Your task to perform on an android device: turn on data saver in the chrome app Image 0: 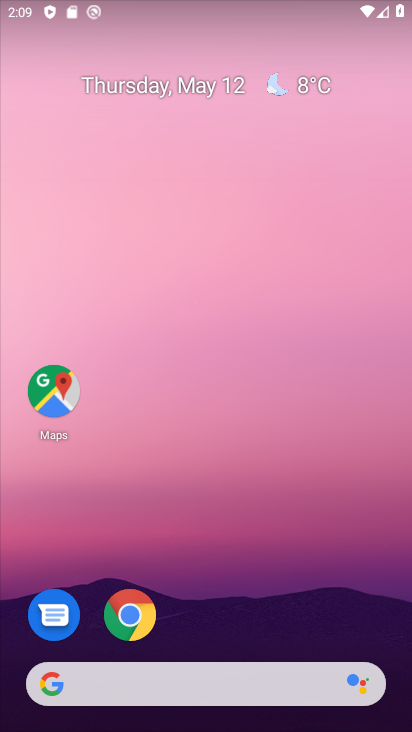
Step 0: click (145, 614)
Your task to perform on an android device: turn on data saver in the chrome app Image 1: 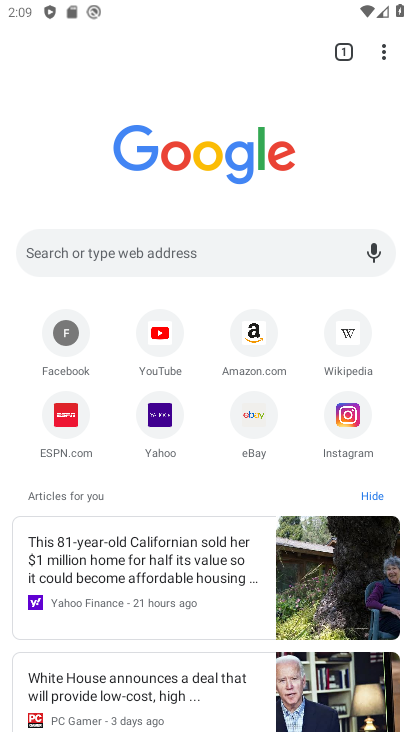
Step 1: drag from (403, 54) to (268, 490)
Your task to perform on an android device: turn on data saver in the chrome app Image 2: 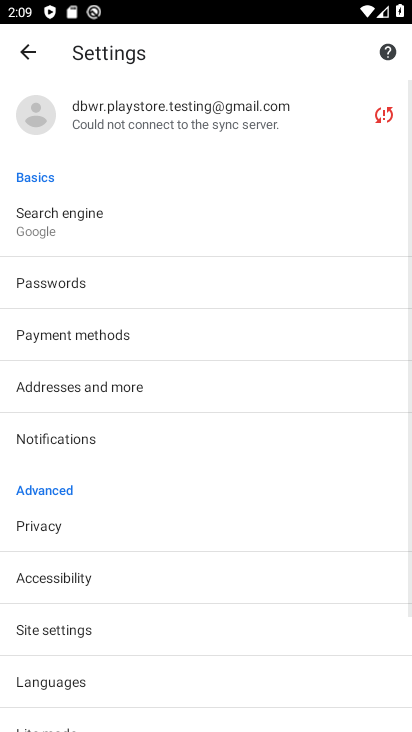
Step 2: drag from (94, 633) to (157, 420)
Your task to perform on an android device: turn on data saver in the chrome app Image 3: 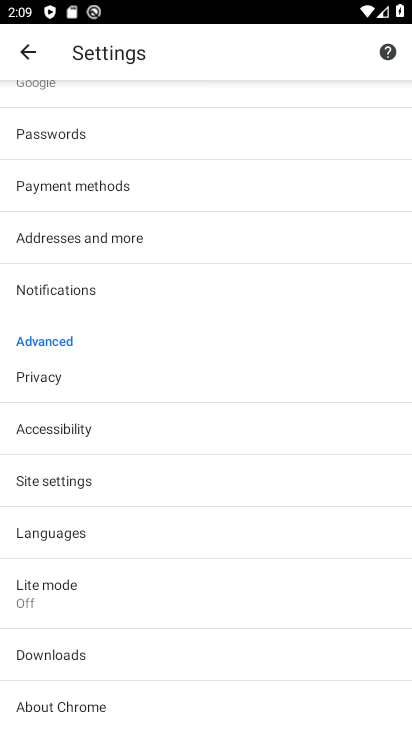
Step 3: click (129, 600)
Your task to perform on an android device: turn on data saver in the chrome app Image 4: 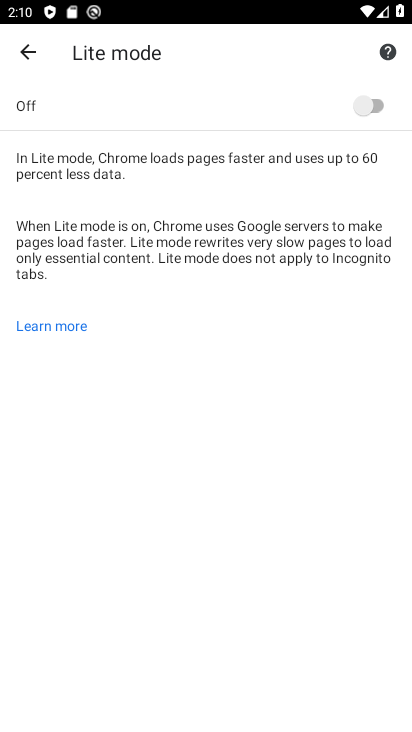
Step 4: click (382, 107)
Your task to perform on an android device: turn on data saver in the chrome app Image 5: 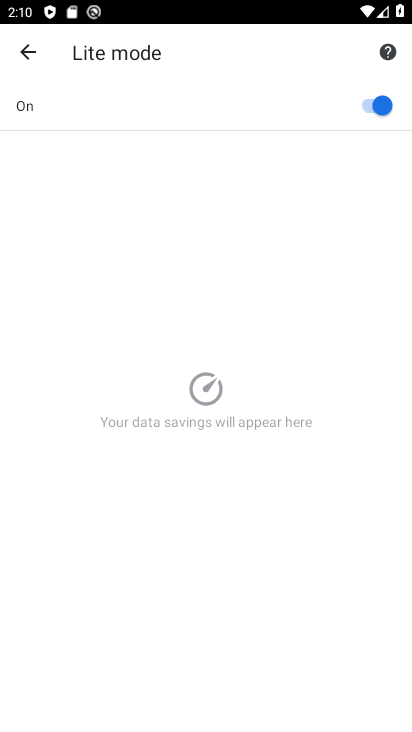
Step 5: task complete